Your task to perform on an android device: turn on the 12-hour format for clock Image 0: 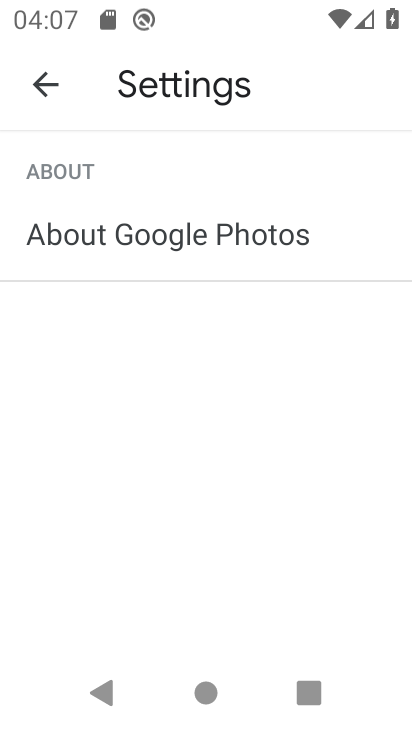
Step 0: press home button
Your task to perform on an android device: turn on the 12-hour format for clock Image 1: 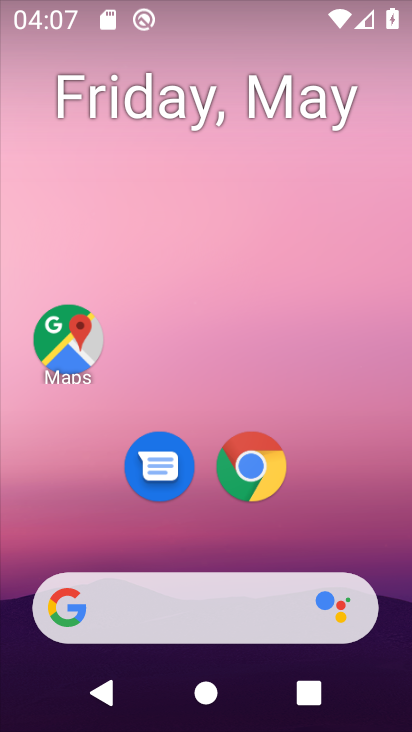
Step 1: click (405, 137)
Your task to perform on an android device: turn on the 12-hour format for clock Image 2: 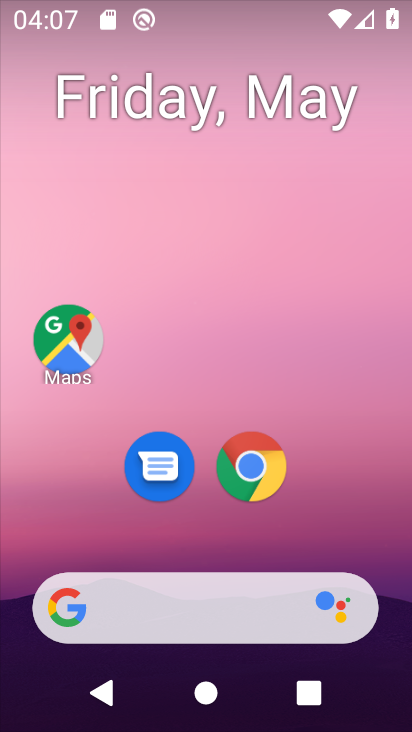
Step 2: drag from (394, 682) to (386, 70)
Your task to perform on an android device: turn on the 12-hour format for clock Image 3: 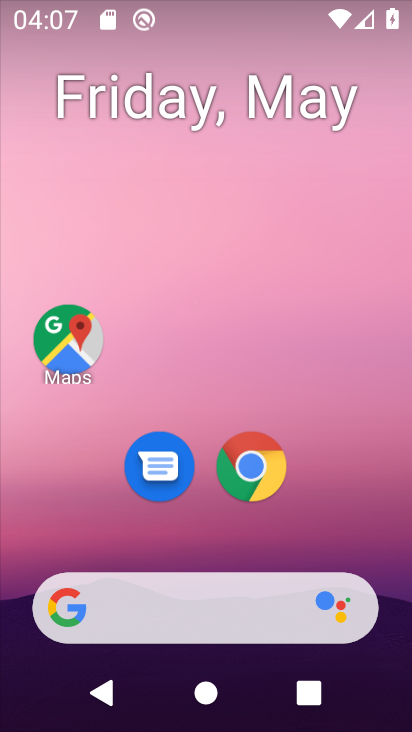
Step 3: drag from (391, 593) to (372, 107)
Your task to perform on an android device: turn on the 12-hour format for clock Image 4: 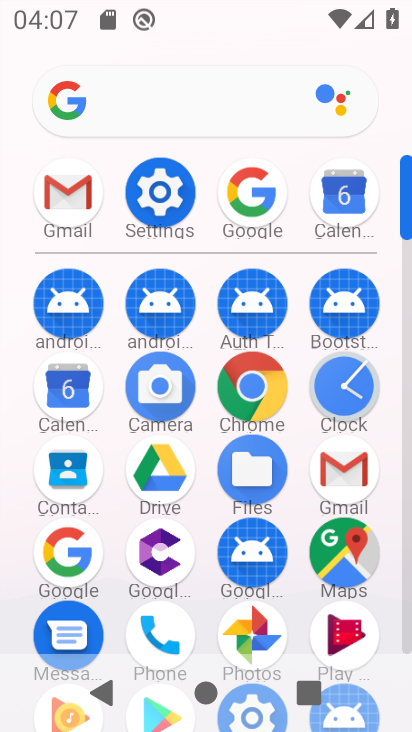
Step 4: click (356, 398)
Your task to perform on an android device: turn on the 12-hour format for clock Image 5: 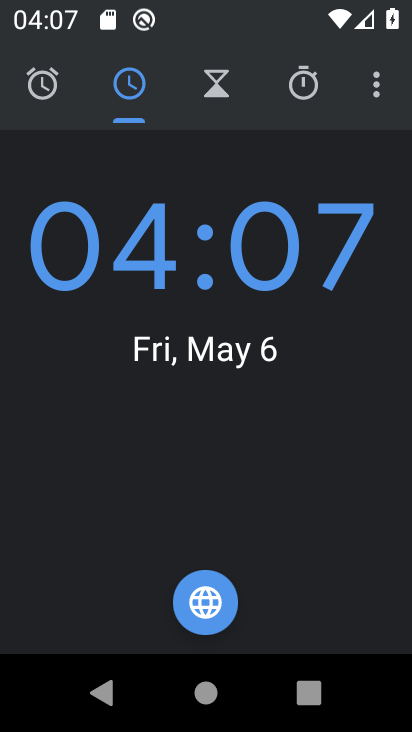
Step 5: click (370, 76)
Your task to perform on an android device: turn on the 12-hour format for clock Image 6: 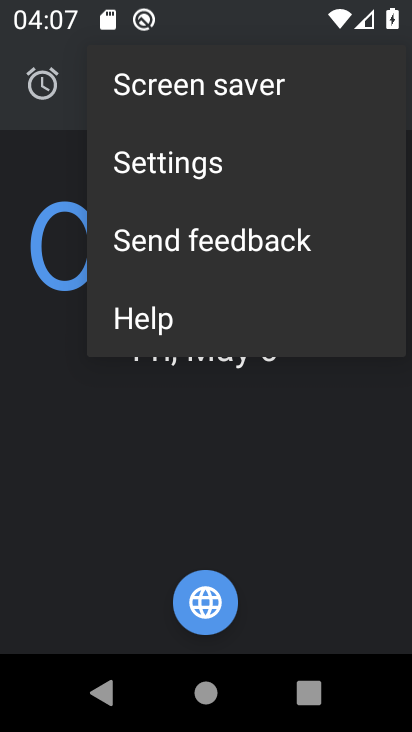
Step 6: click (191, 158)
Your task to perform on an android device: turn on the 12-hour format for clock Image 7: 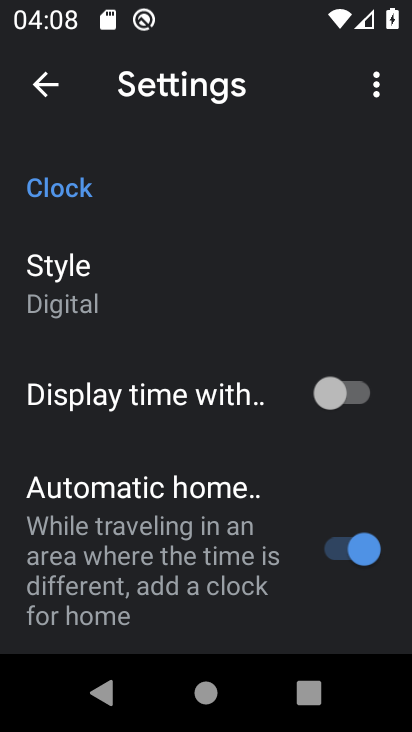
Step 7: drag from (252, 585) to (226, 282)
Your task to perform on an android device: turn on the 12-hour format for clock Image 8: 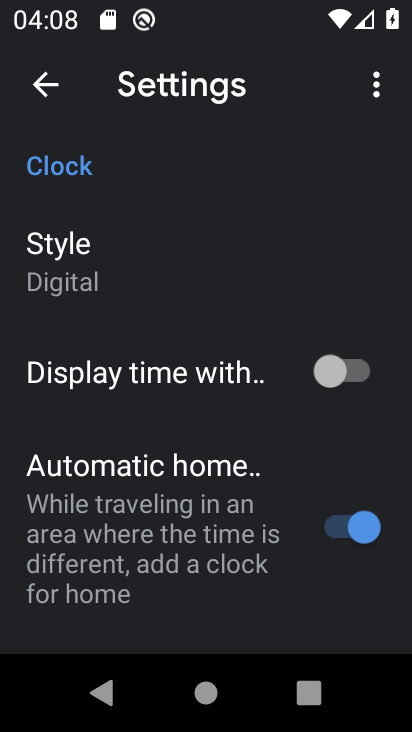
Step 8: drag from (220, 426) to (212, 359)
Your task to perform on an android device: turn on the 12-hour format for clock Image 9: 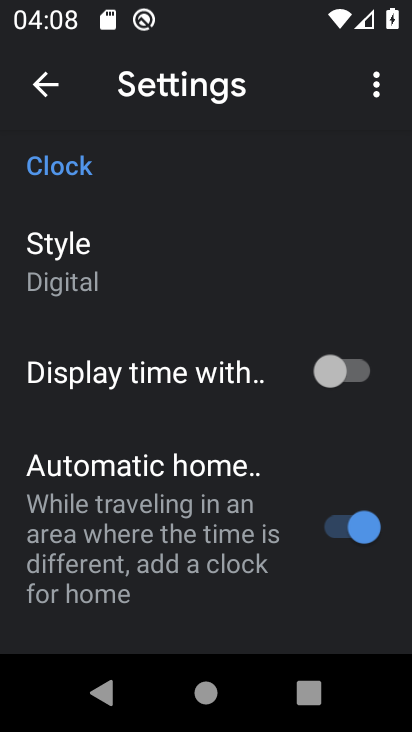
Step 9: drag from (234, 601) to (240, 260)
Your task to perform on an android device: turn on the 12-hour format for clock Image 10: 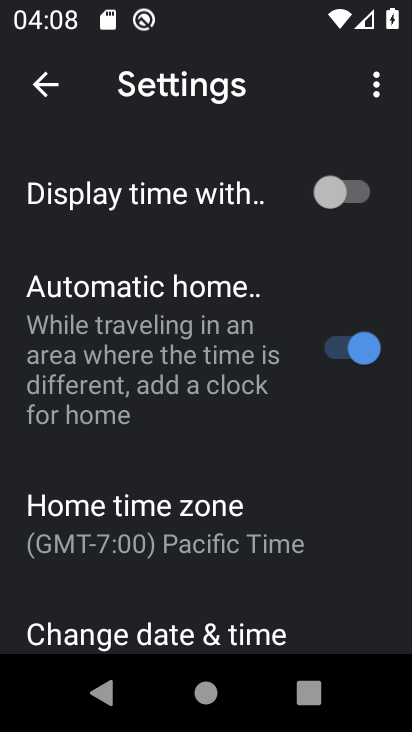
Step 10: click (207, 630)
Your task to perform on an android device: turn on the 12-hour format for clock Image 11: 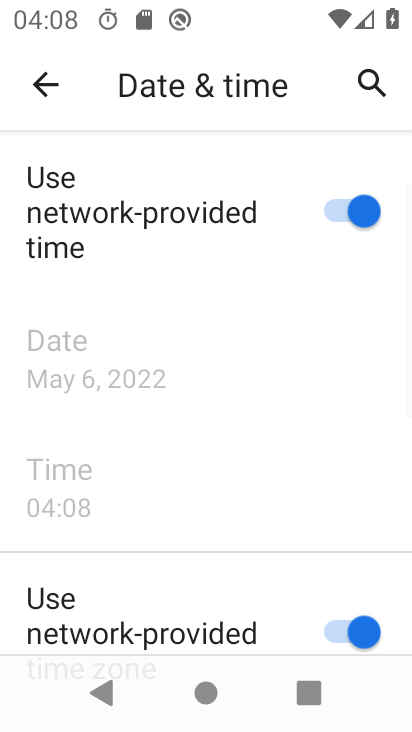
Step 11: drag from (263, 593) to (247, 302)
Your task to perform on an android device: turn on the 12-hour format for clock Image 12: 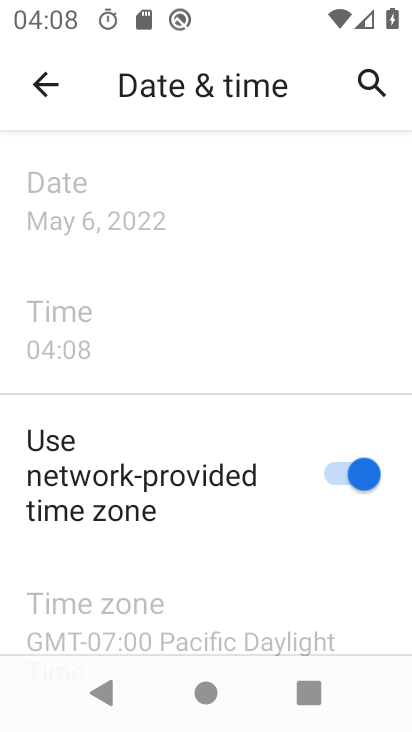
Step 12: drag from (255, 619) to (261, 374)
Your task to perform on an android device: turn on the 12-hour format for clock Image 13: 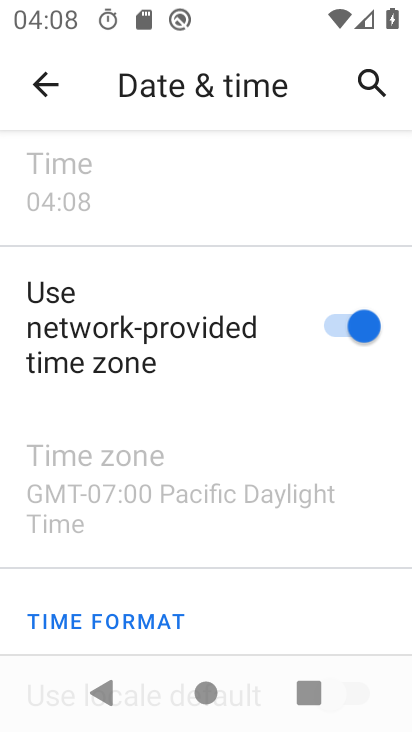
Step 13: click (242, 303)
Your task to perform on an android device: turn on the 12-hour format for clock Image 14: 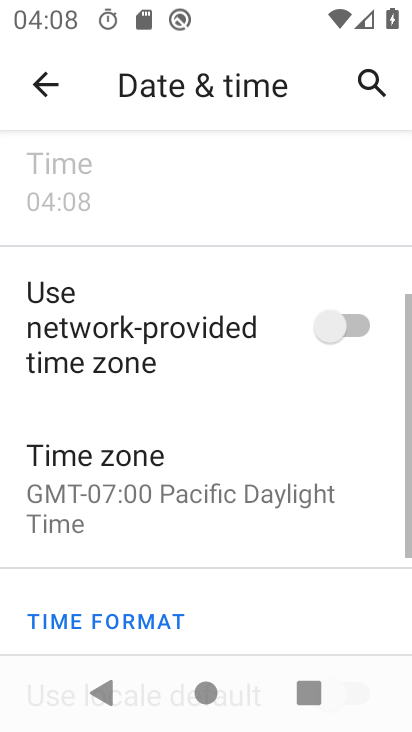
Step 14: drag from (222, 615) to (229, 360)
Your task to perform on an android device: turn on the 12-hour format for clock Image 15: 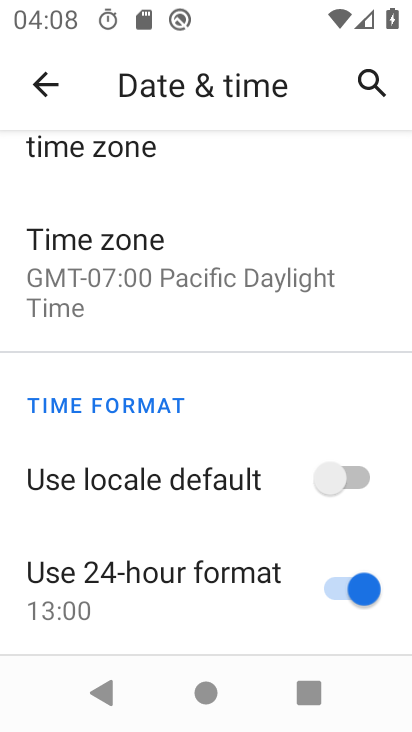
Step 15: click (247, 278)
Your task to perform on an android device: turn on the 12-hour format for clock Image 16: 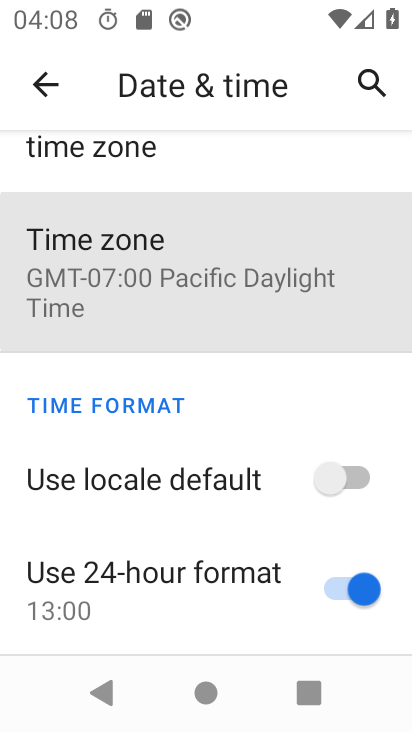
Step 16: click (351, 472)
Your task to perform on an android device: turn on the 12-hour format for clock Image 17: 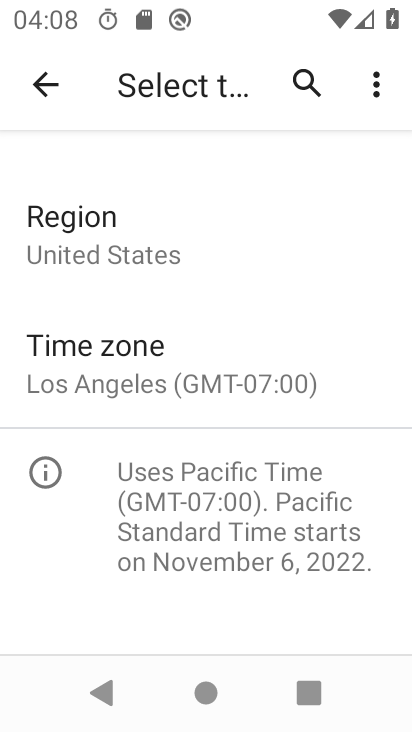
Step 17: click (52, 89)
Your task to perform on an android device: turn on the 12-hour format for clock Image 18: 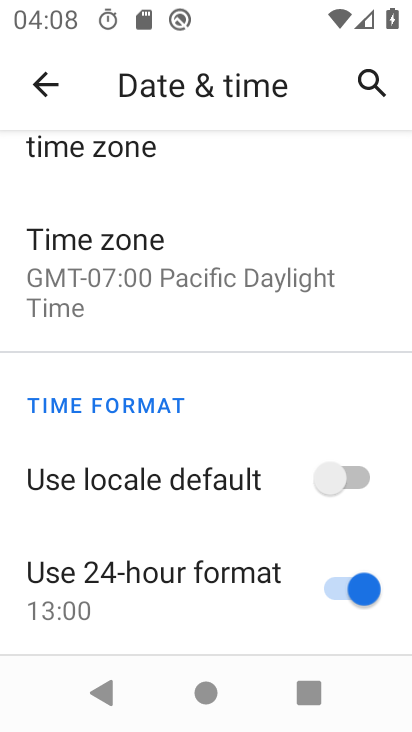
Step 18: click (338, 587)
Your task to perform on an android device: turn on the 12-hour format for clock Image 19: 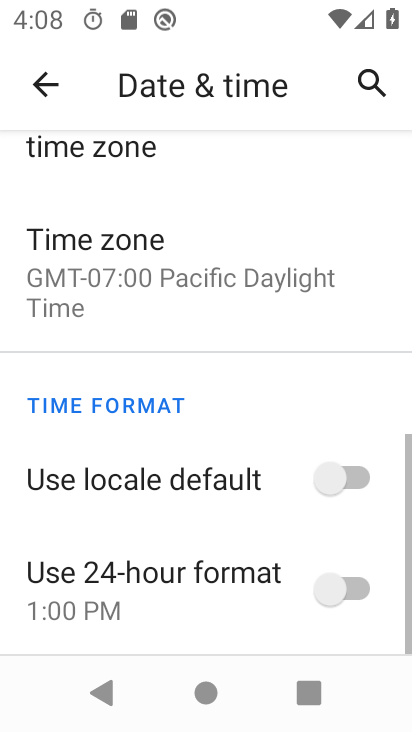
Step 19: click (360, 474)
Your task to perform on an android device: turn on the 12-hour format for clock Image 20: 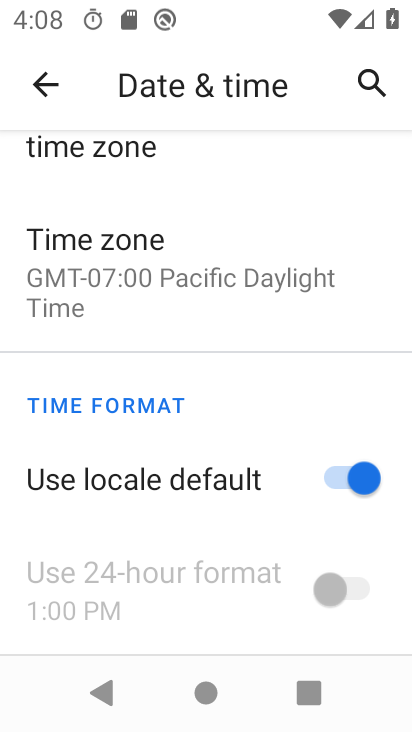
Step 20: task complete